Your task to perform on an android device: toggle priority inbox in the gmail app Image 0: 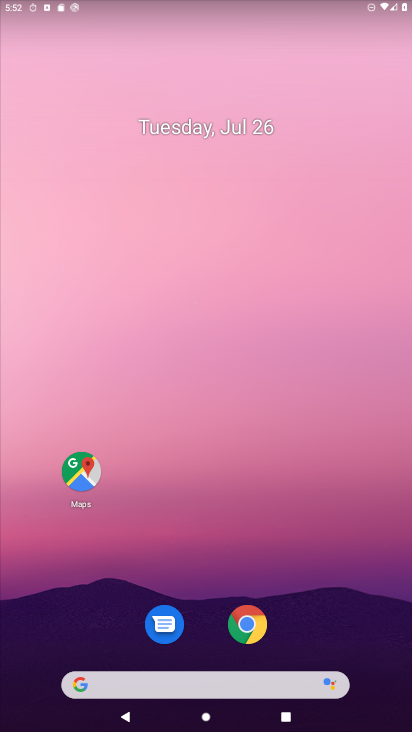
Step 0: drag from (137, 662) to (144, 9)
Your task to perform on an android device: toggle priority inbox in the gmail app Image 1: 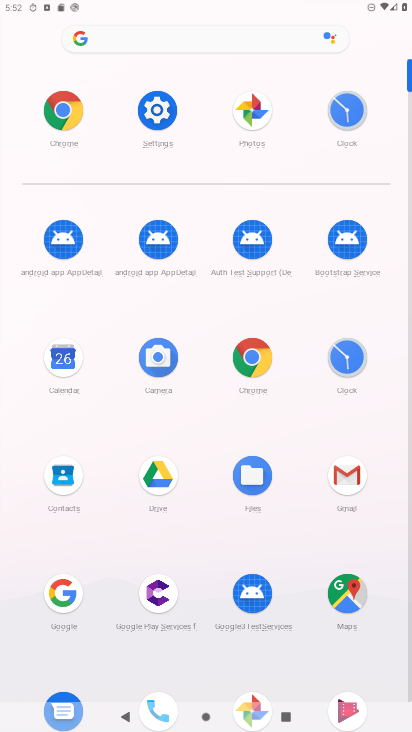
Step 1: click (352, 467)
Your task to perform on an android device: toggle priority inbox in the gmail app Image 2: 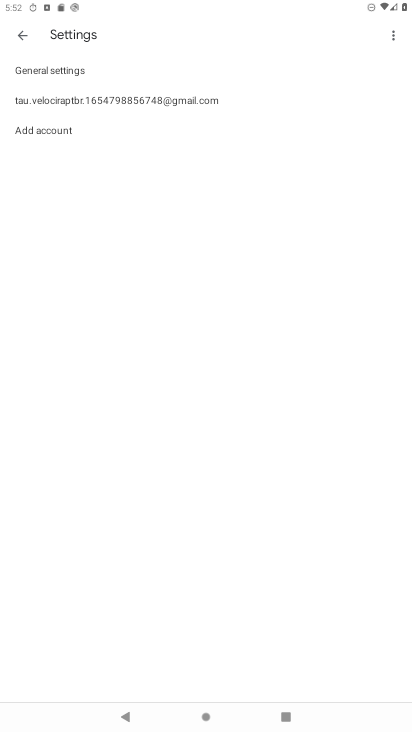
Step 2: click (136, 96)
Your task to perform on an android device: toggle priority inbox in the gmail app Image 3: 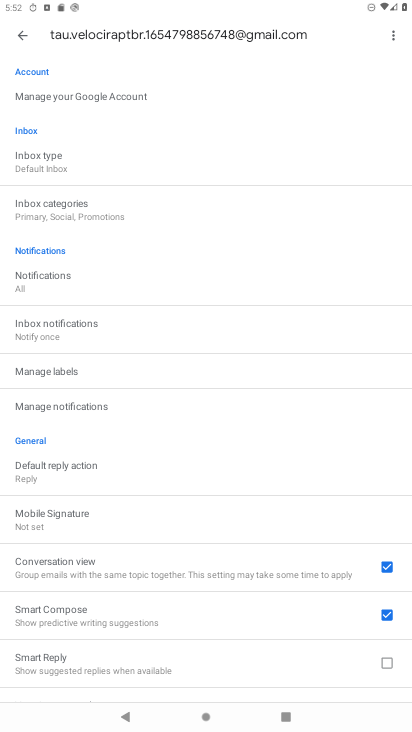
Step 3: click (18, 163)
Your task to perform on an android device: toggle priority inbox in the gmail app Image 4: 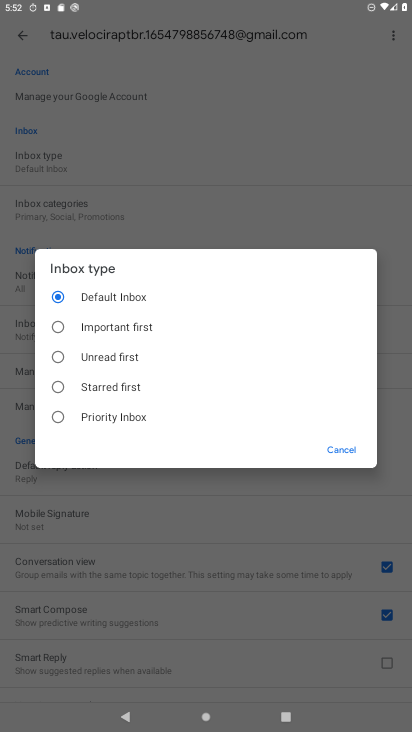
Step 4: click (55, 411)
Your task to perform on an android device: toggle priority inbox in the gmail app Image 5: 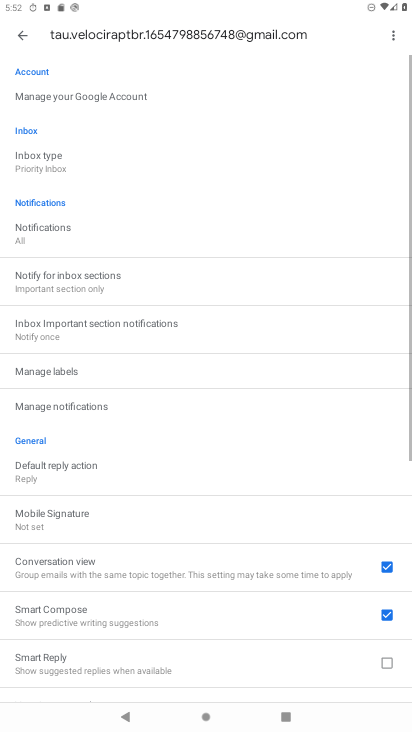
Step 5: task complete